Your task to perform on an android device: turn on the 12-hour format for clock Image 0: 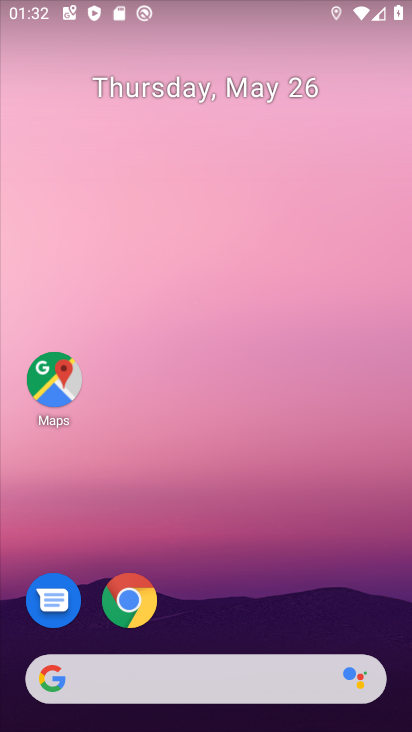
Step 0: drag from (244, 551) to (258, 121)
Your task to perform on an android device: turn on the 12-hour format for clock Image 1: 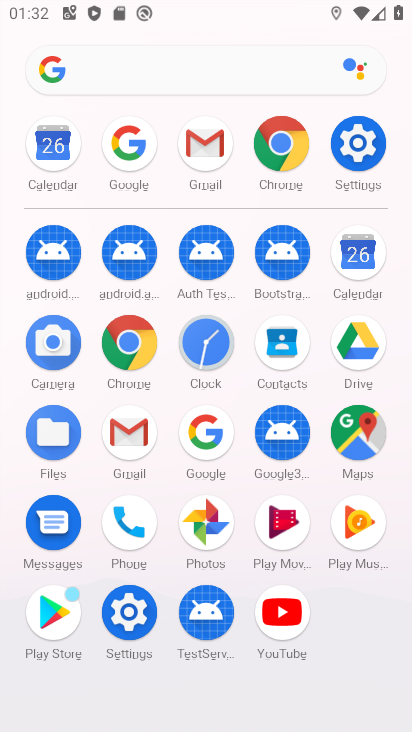
Step 1: click (206, 341)
Your task to perform on an android device: turn on the 12-hour format for clock Image 2: 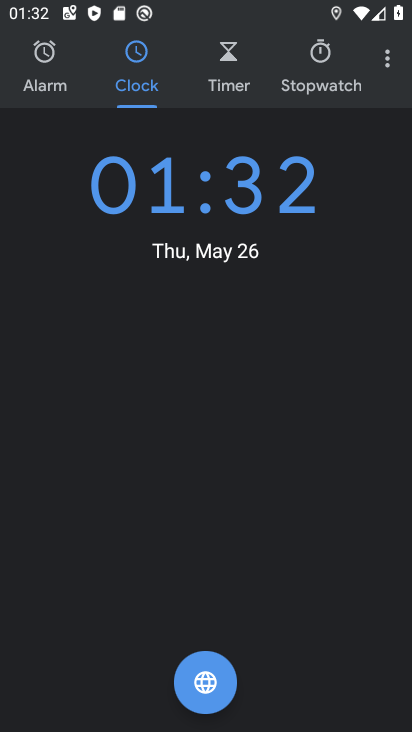
Step 2: click (368, 66)
Your task to perform on an android device: turn on the 12-hour format for clock Image 3: 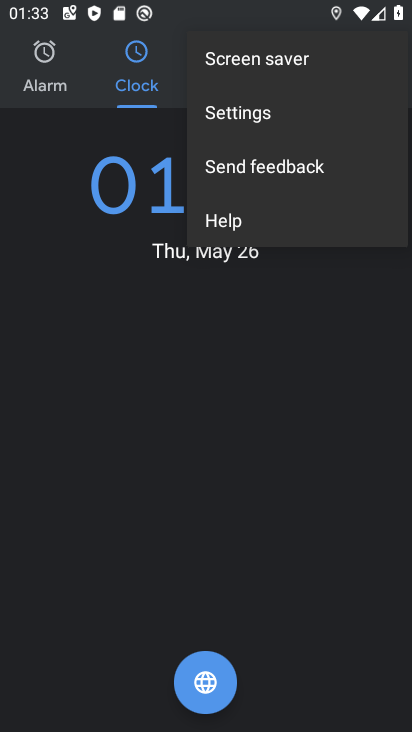
Step 3: click (248, 120)
Your task to perform on an android device: turn on the 12-hour format for clock Image 4: 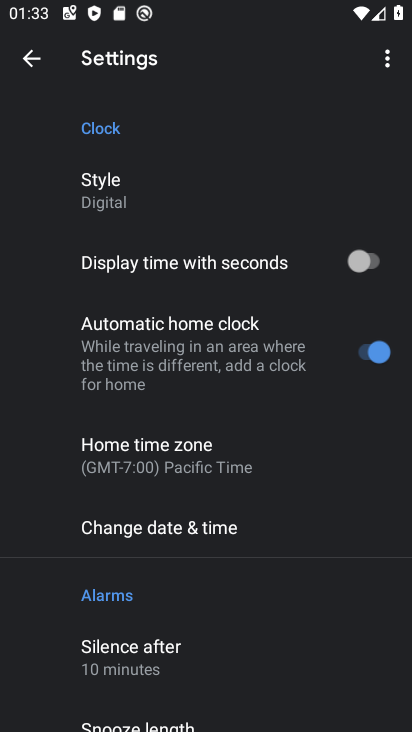
Step 4: click (151, 520)
Your task to perform on an android device: turn on the 12-hour format for clock Image 5: 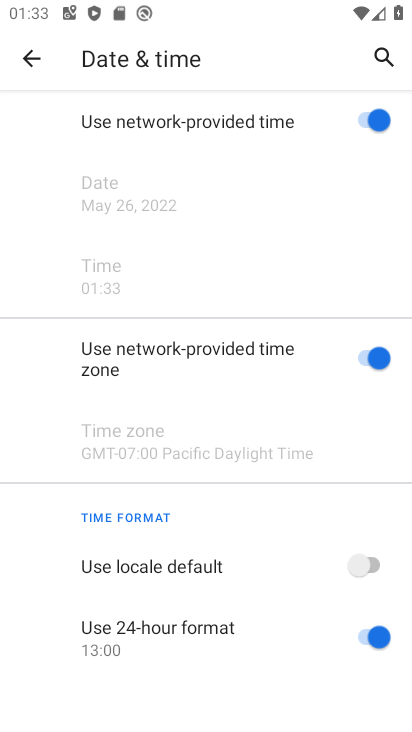
Step 5: click (374, 631)
Your task to perform on an android device: turn on the 12-hour format for clock Image 6: 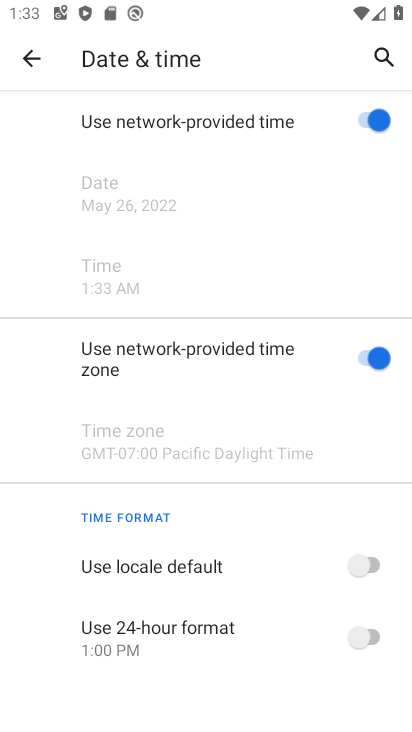
Step 6: task complete